Your task to perform on an android device: turn on bluetooth scan Image 0: 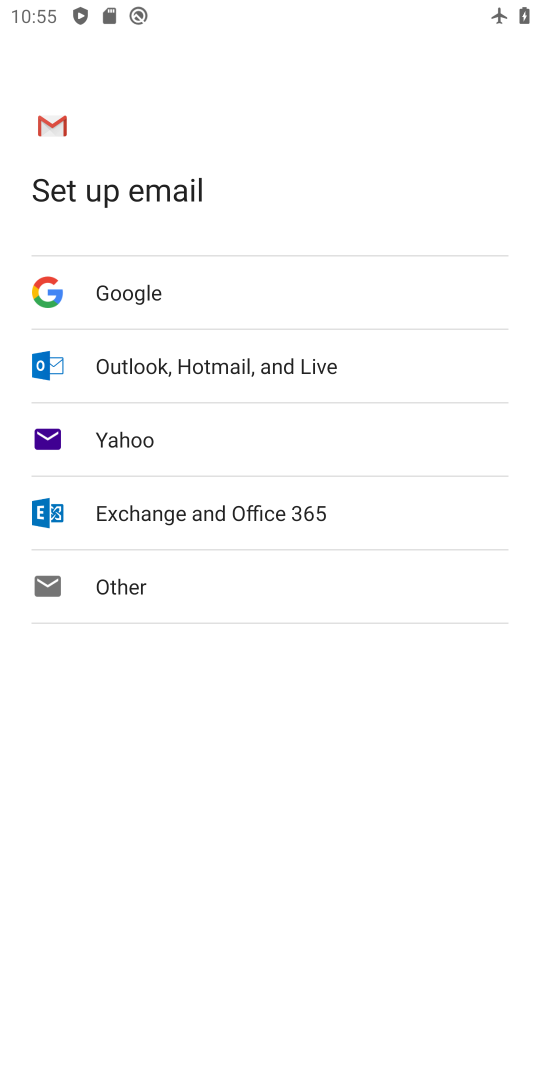
Step 0: press home button
Your task to perform on an android device: turn on bluetooth scan Image 1: 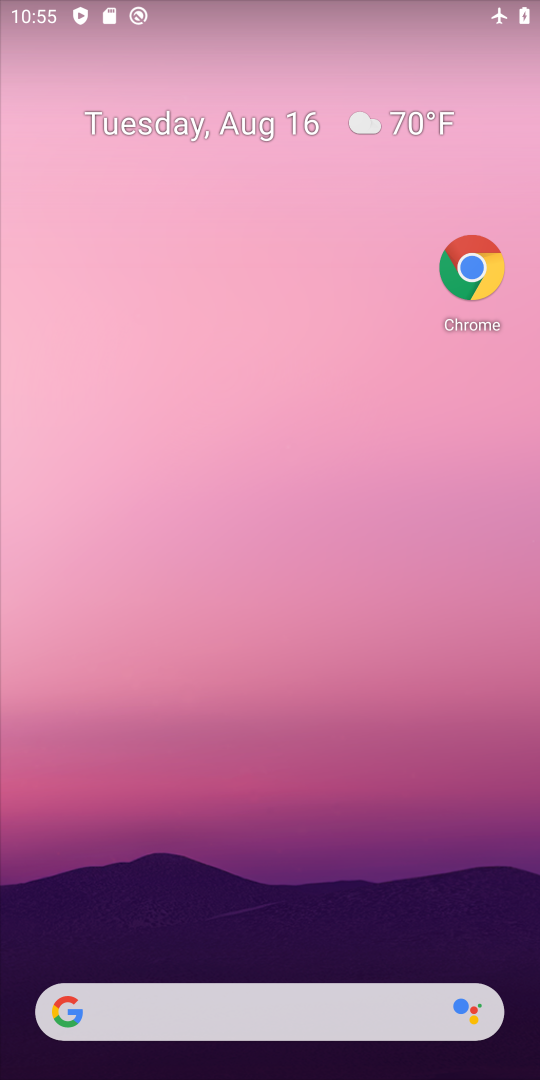
Step 1: drag from (251, 938) to (218, 295)
Your task to perform on an android device: turn on bluetooth scan Image 2: 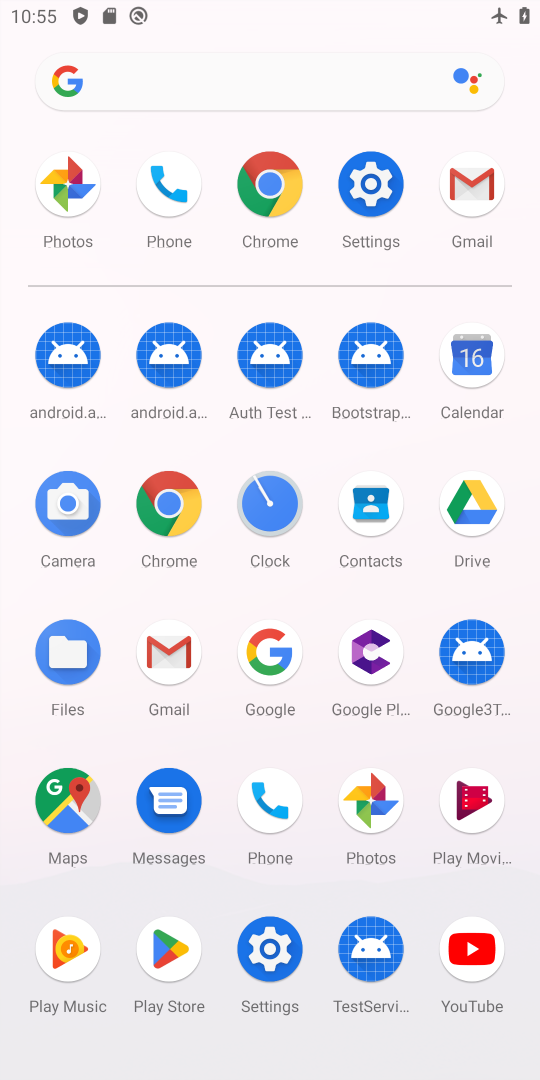
Step 2: click (368, 187)
Your task to perform on an android device: turn on bluetooth scan Image 3: 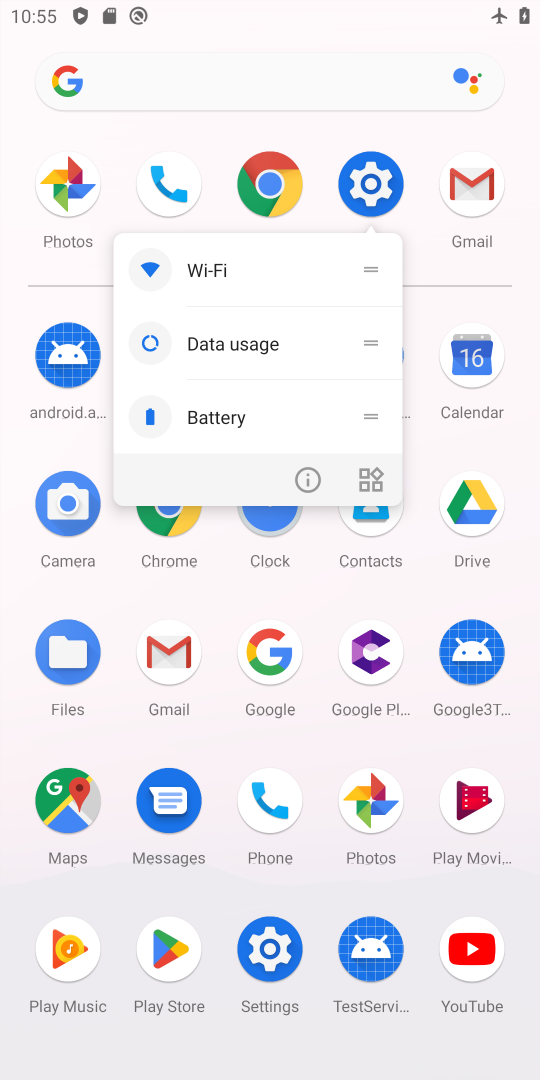
Step 3: click (368, 187)
Your task to perform on an android device: turn on bluetooth scan Image 4: 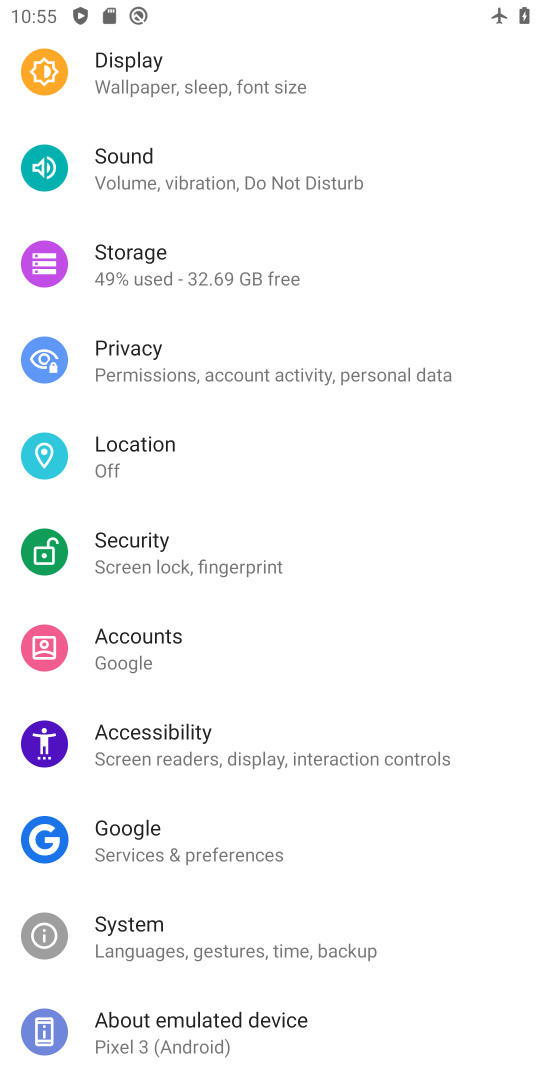
Step 4: drag from (291, 203) to (226, 659)
Your task to perform on an android device: turn on bluetooth scan Image 5: 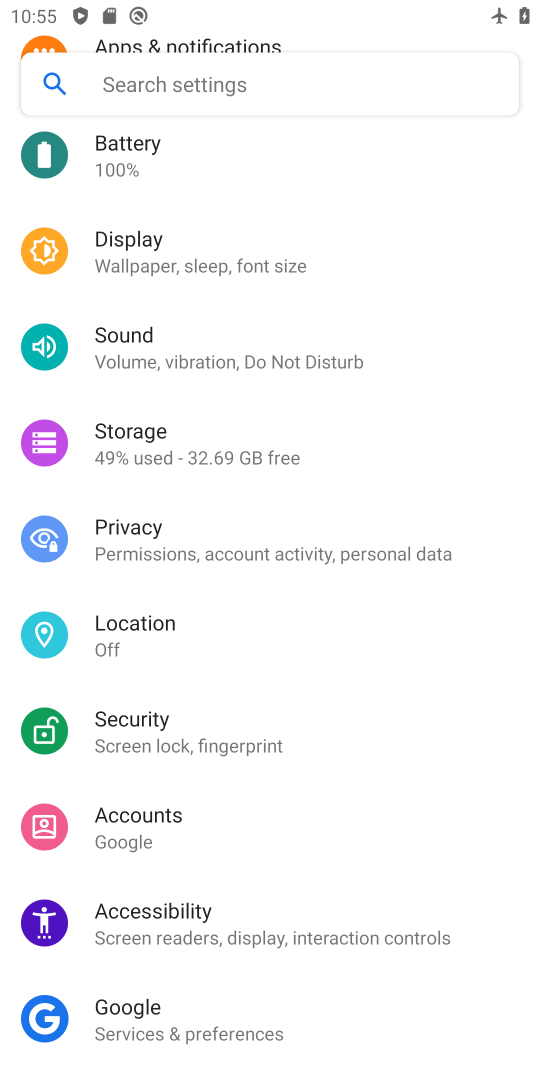
Step 5: drag from (175, 264) to (192, 649)
Your task to perform on an android device: turn on bluetooth scan Image 6: 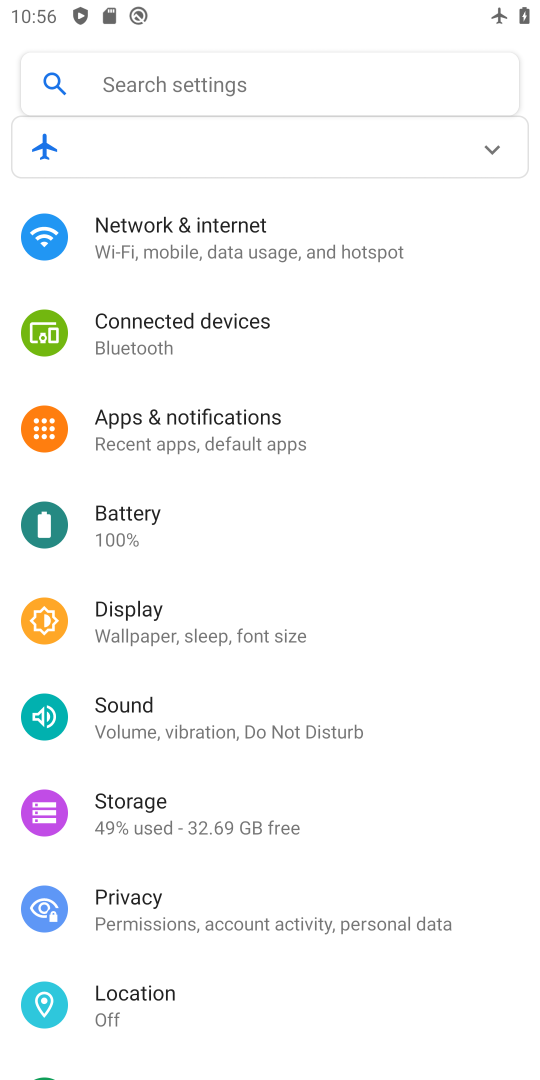
Step 6: drag from (257, 901) to (96, 340)
Your task to perform on an android device: turn on bluetooth scan Image 7: 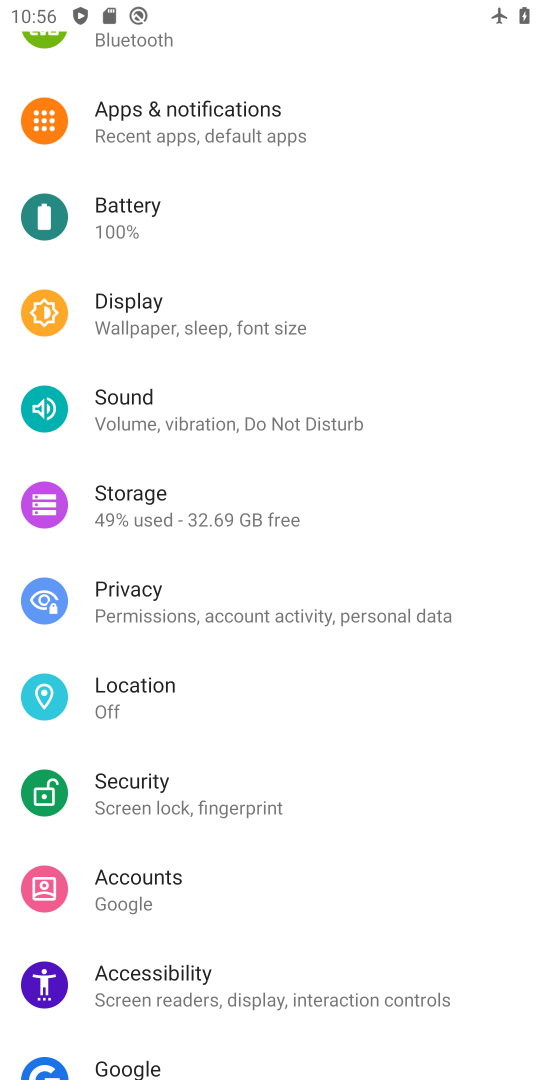
Step 7: drag from (130, 252) to (139, 673)
Your task to perform on an android device: turn on bluetooth scan Image 8: 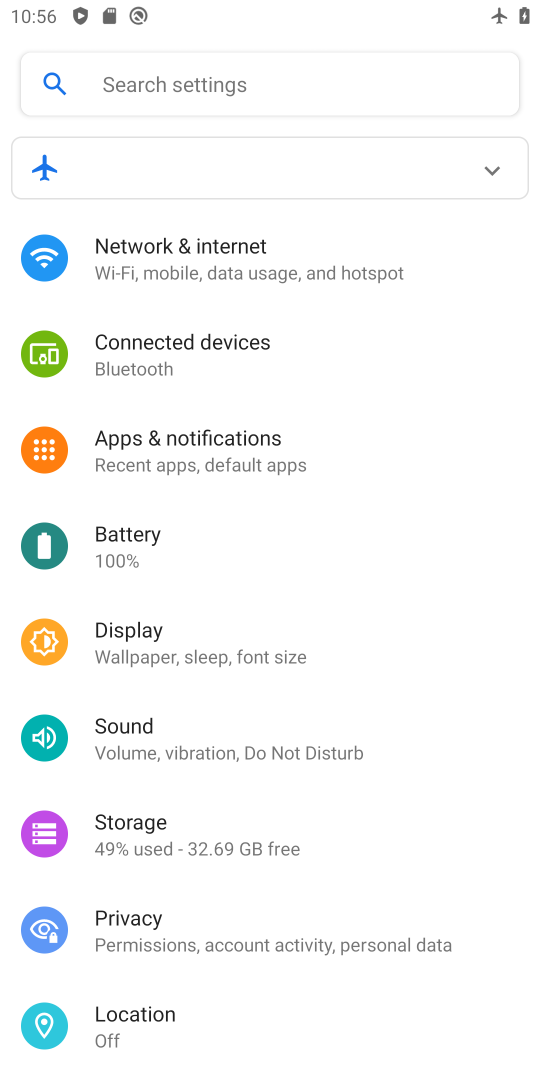
Step 8: click (150, 1030)
Your task to perform on an android device: turn on bluetooth scan Image 9: 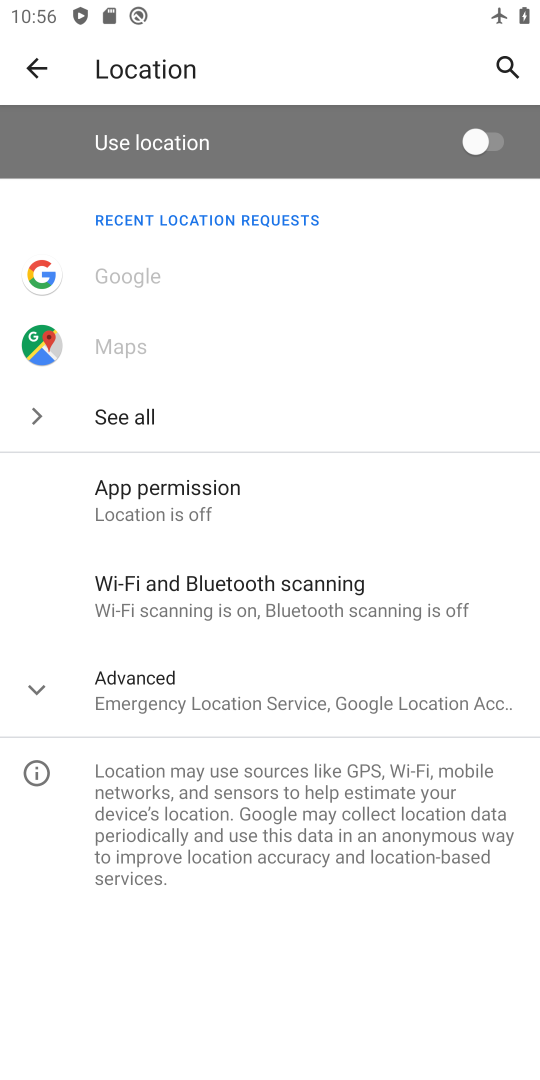
Step 9: click (271, 595)
Your task to perform on an android device: turn on bluetooth scan Image 10: 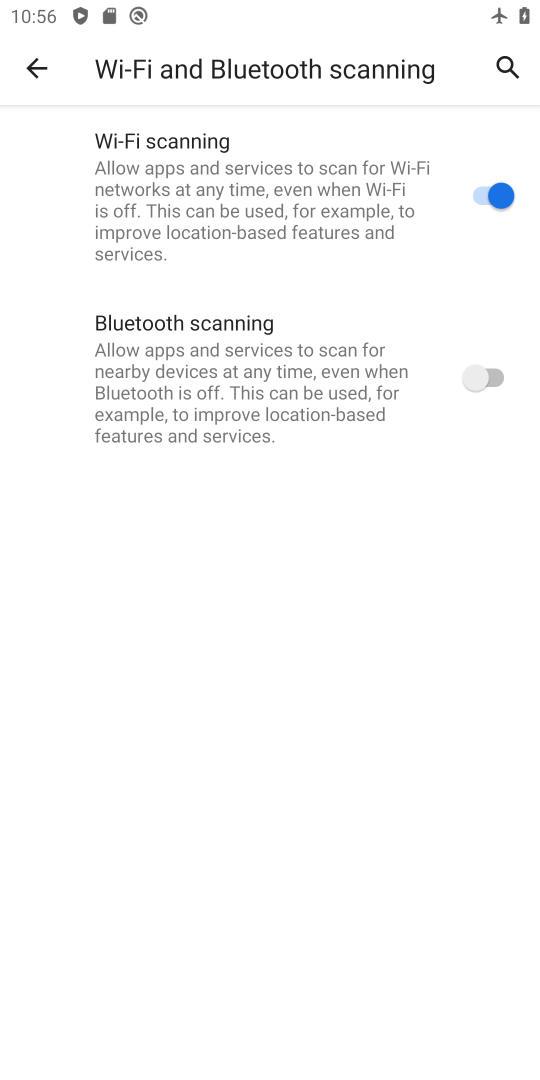
Step 10: click (497, 374)
Your task to perform on an android device: turn on bluetooth scan Image 11: 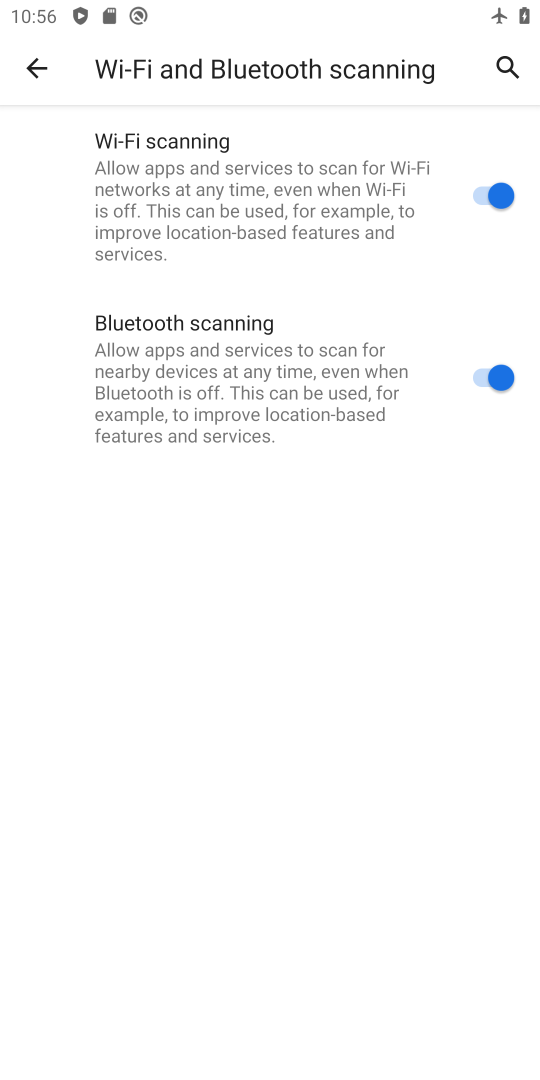
Step 11: task complete